Your task to perform on an android device: Show me productivity apps on the Play Store Image 0: 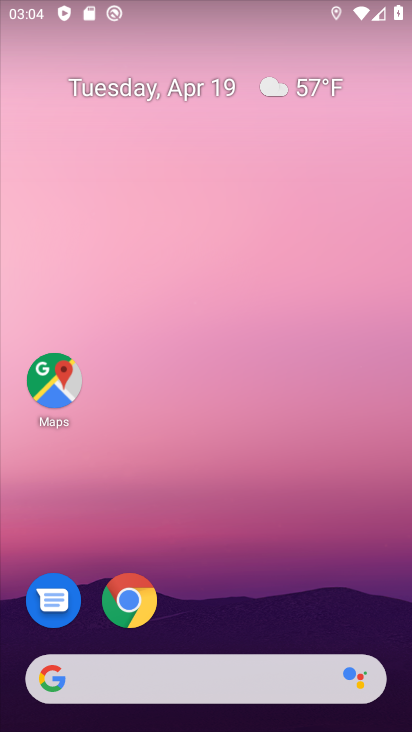
Step 0: drag from (169, 413) to (132, 185)
Your task to perform on an android device: Show me productivity apps on the Play Store Image 1: 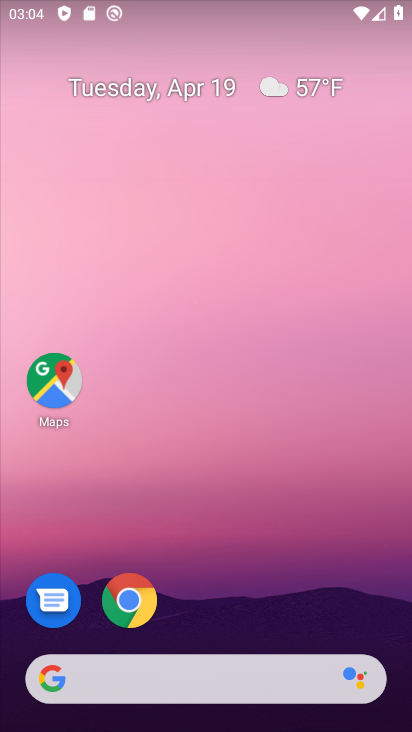
Step 1: drag from (253, 595) to (206, 209)
Your task to perform on an android device: Show me productivity apps on the Play Store Image 2: 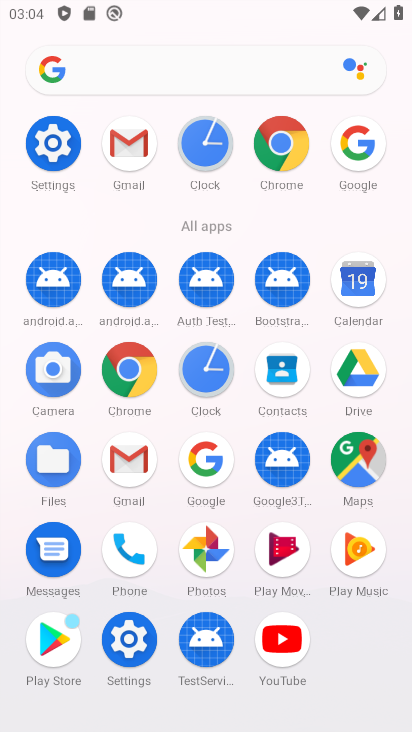
Step 2: click (64, 636)
Your task to perform on an android device: Show me productivity apps on the Play Store Image 3: 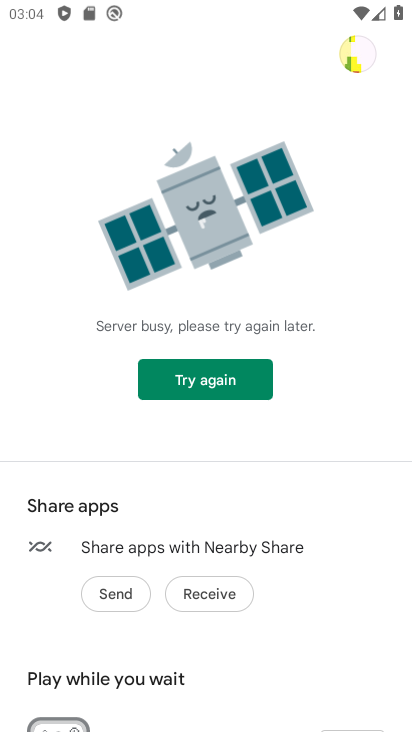
Step 3: task complete